Your task to perform on an android device: What's on my calendar tomorrow? Image 0: 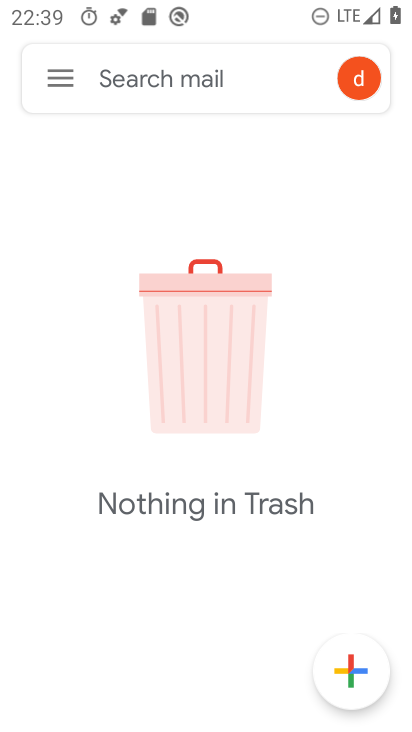
Step 0: press home button
Your task to perform on an android device: What's on my calendar tomorrow? Image 1: 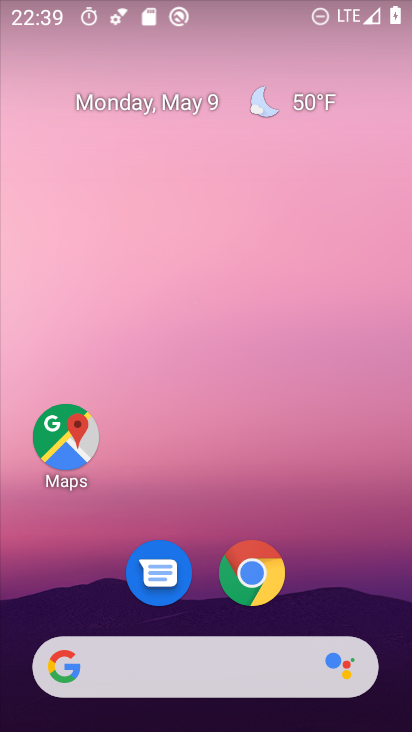
Step 1: drag from (349, 556) to (303, 198)
Your task to perform on an android device: What's on my calendar tomorrow? Image 2: 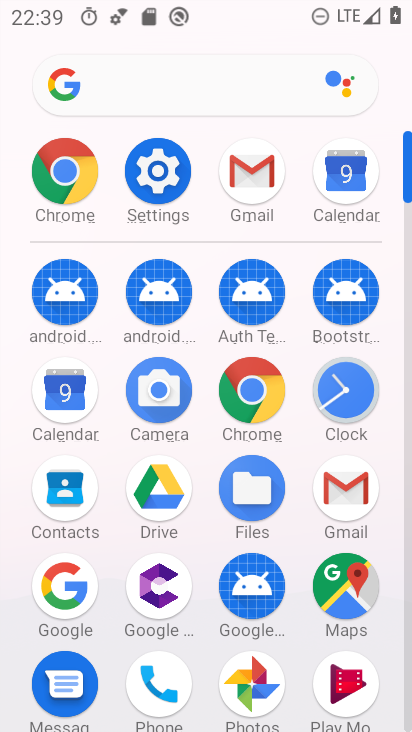
Step 2: click (73, 404)
Your task to perform on an android device: What's on my calendar tomorrow? Image 3: 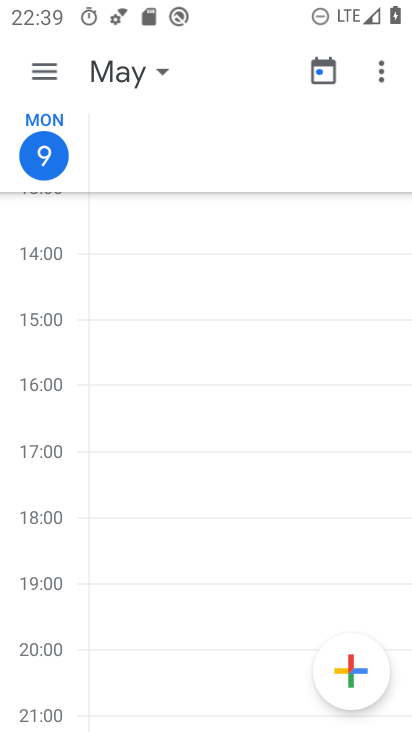
Step 3: click (139, 71)
Your task to perform on an android device: What's on my calendar tomorrow? Image 4: 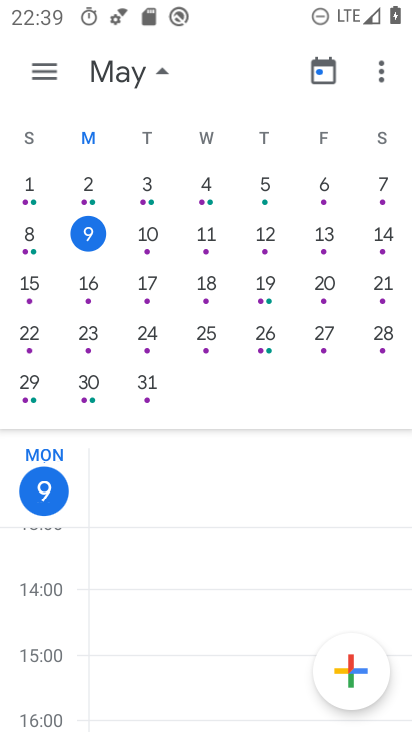
Step 4: click (151, 227)
Your task to perform on an android device: What's on my calendar tomorrow? Image 5: 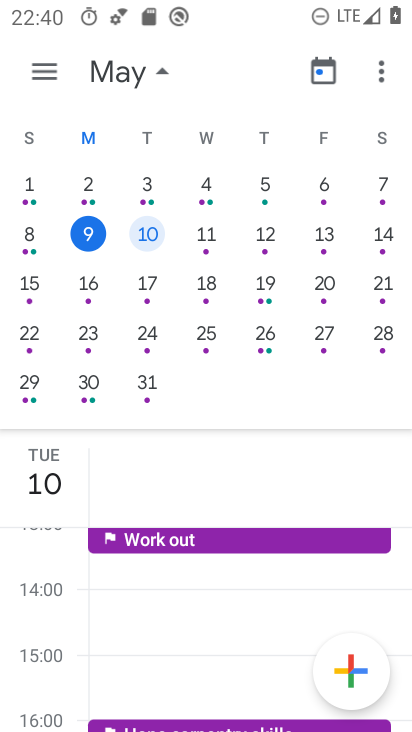
Step 5: task complete